Your task to perform on an android device: Go to sound settings Image 0: 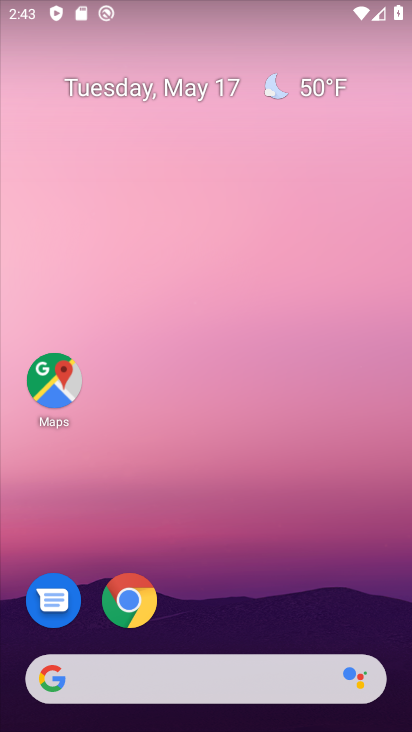
Step 0: drag from (222, 605) to (189, 115)
Your task to perform on an android device: Go to sound settings Image 1: 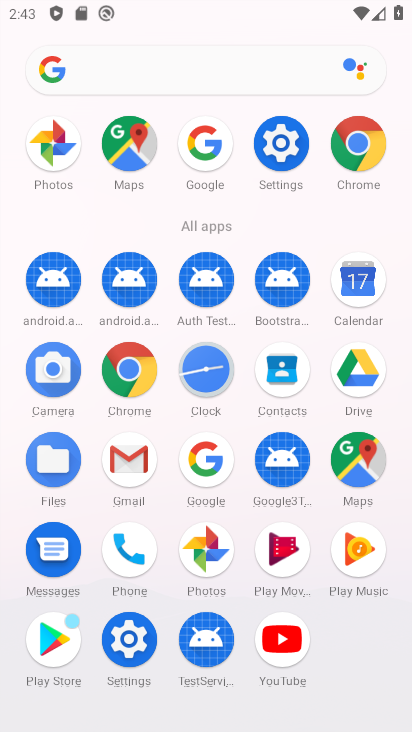
Step 1: click (271, 161)
Your task to perform on an android device: Go to sound settings Image 2: 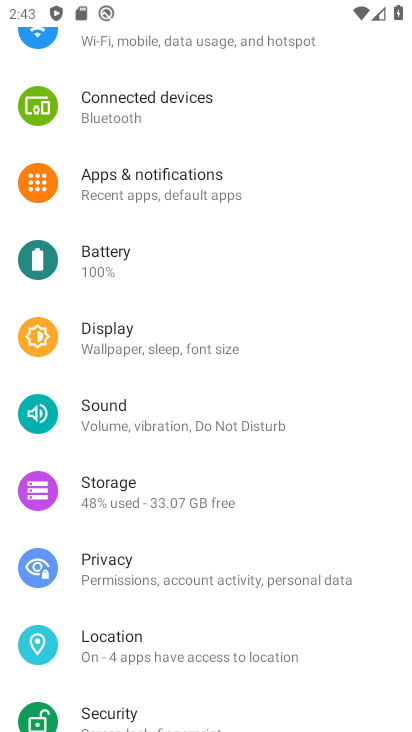
Step 2: click (189, 415)
Your task to perform on an android device: Go to sound settings Image 3: 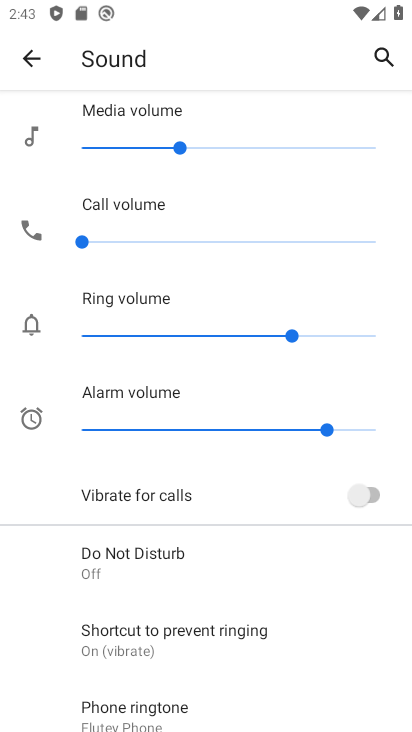
Step 3: task complete